Your task to perform on an android device: Open the phone app and click the voicemail tab. Image 0: 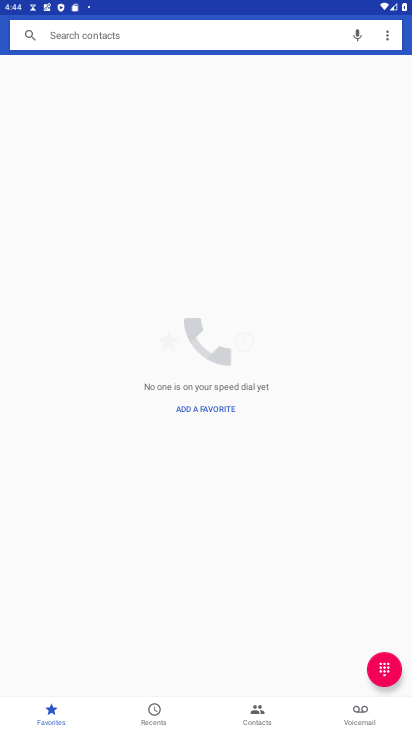
Step 0: press home button
Your task to perform on an android device: Open the phone app and click the voicemail tab. Image 1: 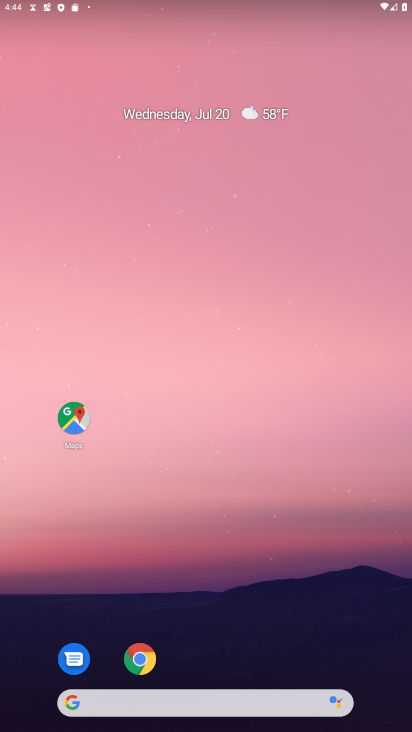
Step 1: drag from (206, 648) to (251, 5)
Your task to perform on an android device: Open the phone app and click the voicemail tab. Image 2: 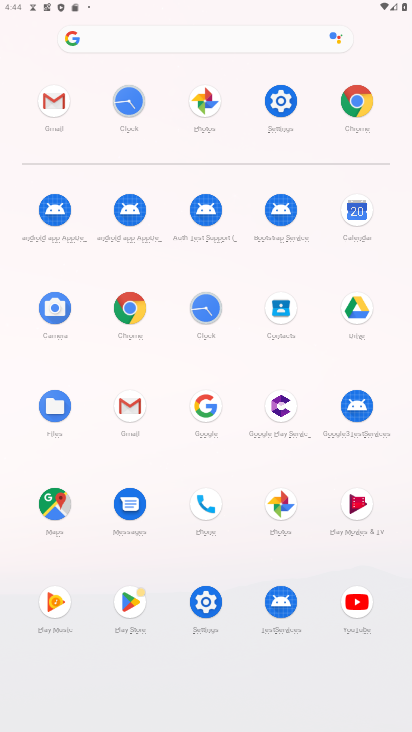
Step 2: click (210, 497)
Your task to perform on an android device: Open the phone app and click the voicemail tab. Image 3: 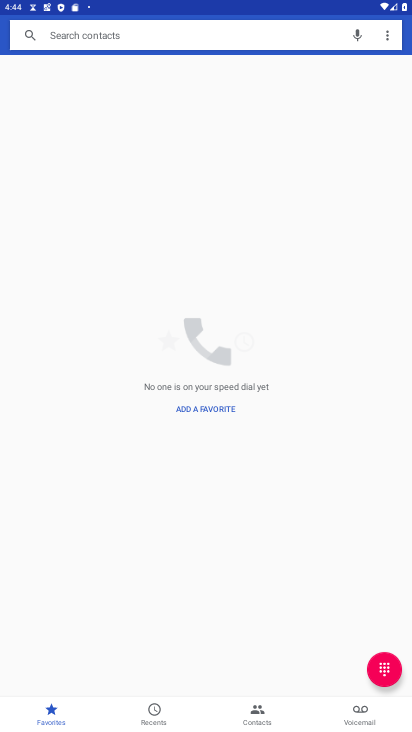
Step 3: click (353, 713)
Your task to perform on an android device: Open the phone app and click the voicemail tab. Image 4: 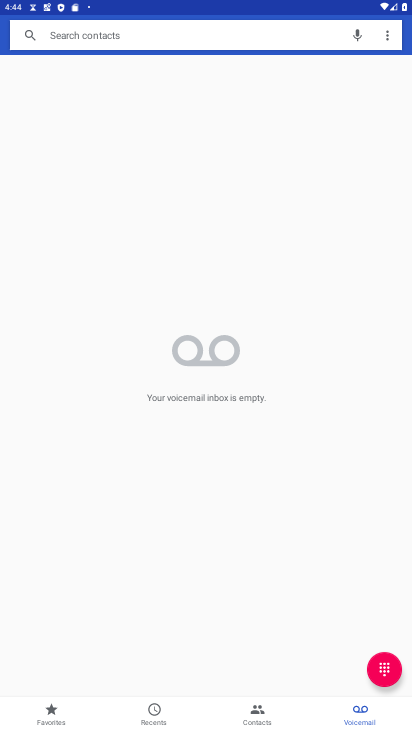
Step 4: task complete